Your task to perform on an android device: Play the last video I watched on Youtube Image 0: 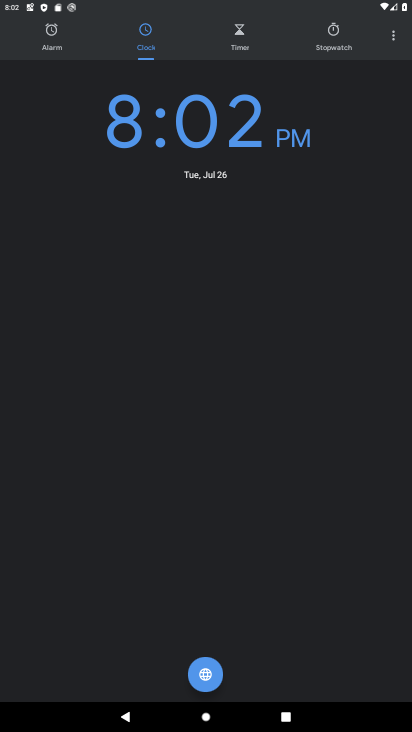
Step 0: press home button
Your task to perform on an android device: Play the last video I watched on Youtube Image 1: 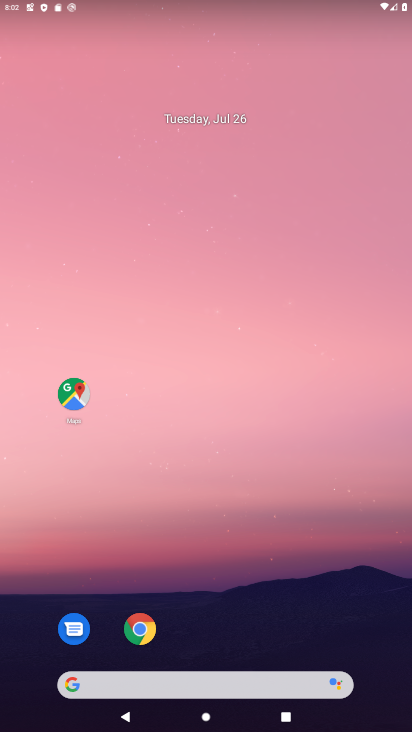
Step 1: drag from (215, 643) to (238, 87)
Your task to perform on an android device: Play the last video I watched on Youtube Image 2: 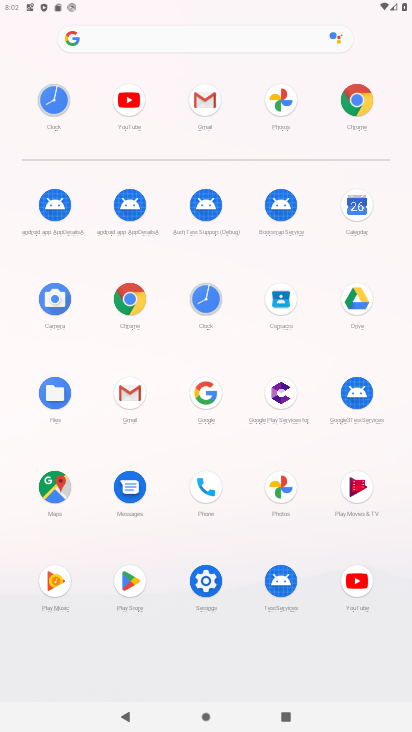
Step 2: click (354, 577)
Your task to perform on an android device: Play the last video I watched on Youtube Image 3: 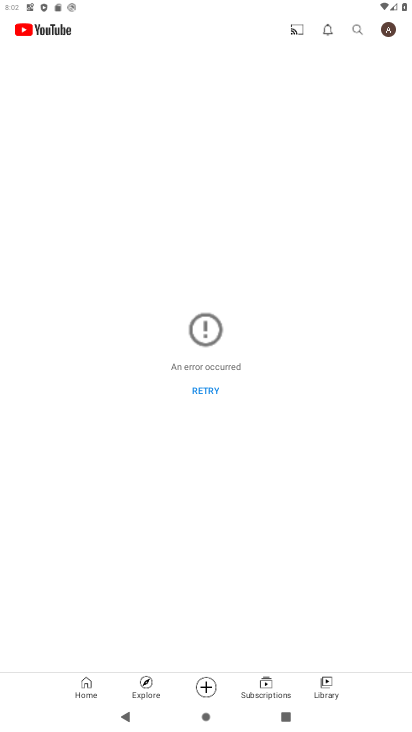
Step 3: click (322, 683)
Your task to perform on an android device: Play the last video I watched on Youtube Image 4: 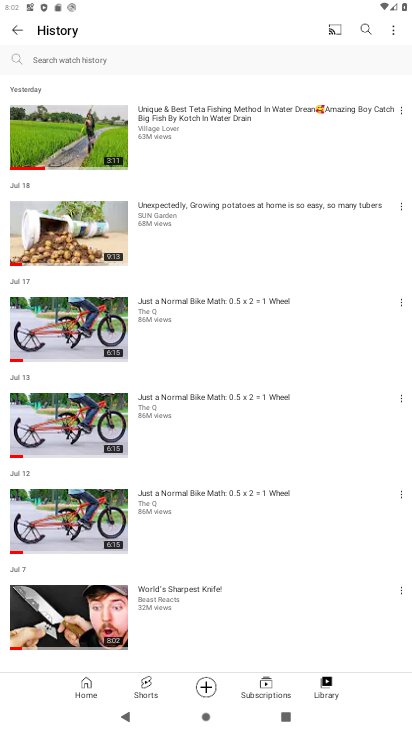
Step 4: click (103, 132)
Your task to perform on an android device: Play the last video I watched on Youtube Image 5: 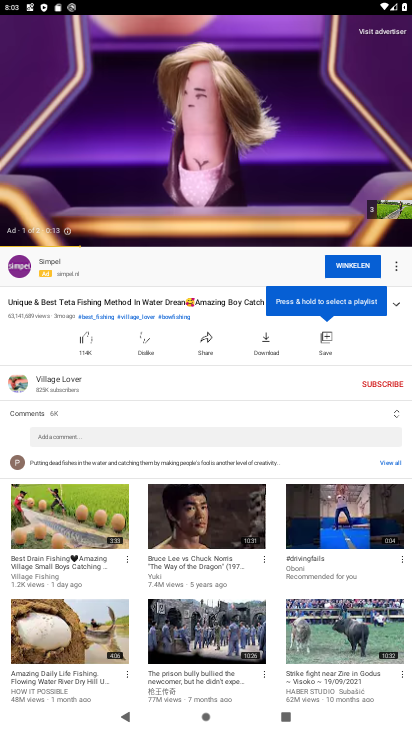
Step 5: task complete